Your task to perform on an android device: open chrome and create a bookmark for the current page Image 0: 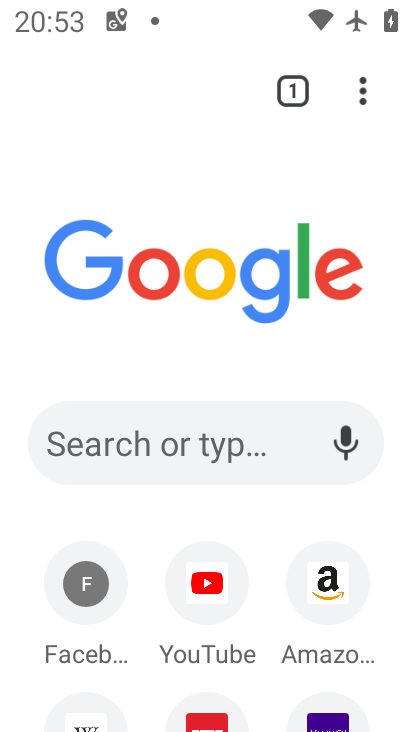
Step 0: press back button
Your task to perform on an android device: open chrome and create a bookmark for the current page Image 1: 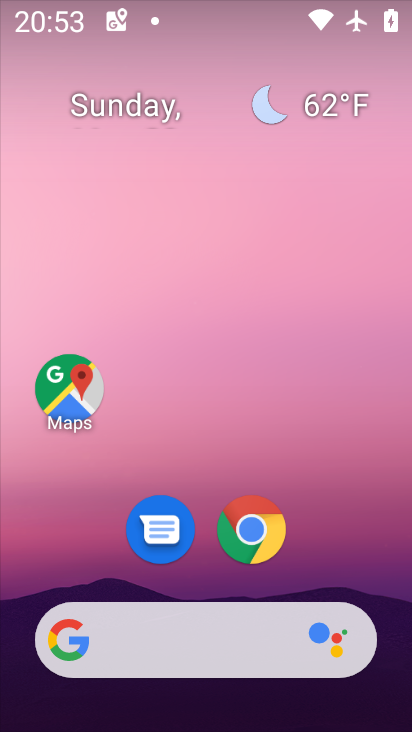
Step 1: drag from (363, 685) to (168, 7)
Your task to perform on an android device: open chrome and create a bookmark for the current page Image 2: 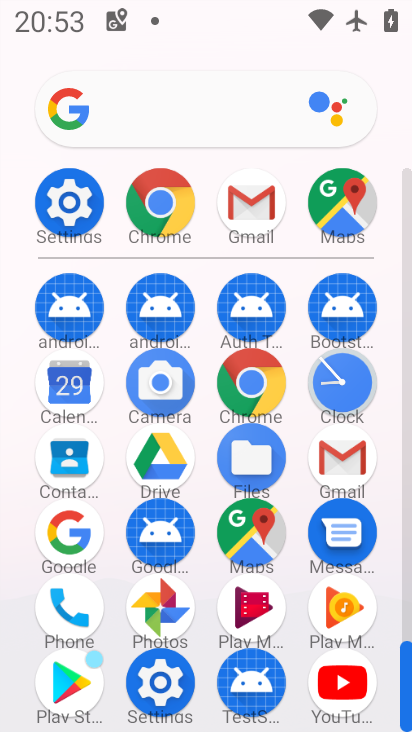
Step 2: click (255, 370)
Your task to perform on an android device: open chrome and create a bookmark for the current page Image 3: 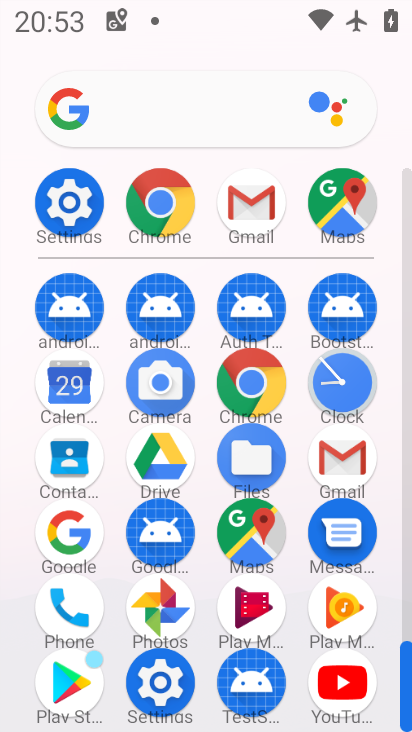
Step 3: click (255, 370)
Your task to perform on an android device: open chrome and create a bookmark for the current page Image 4: 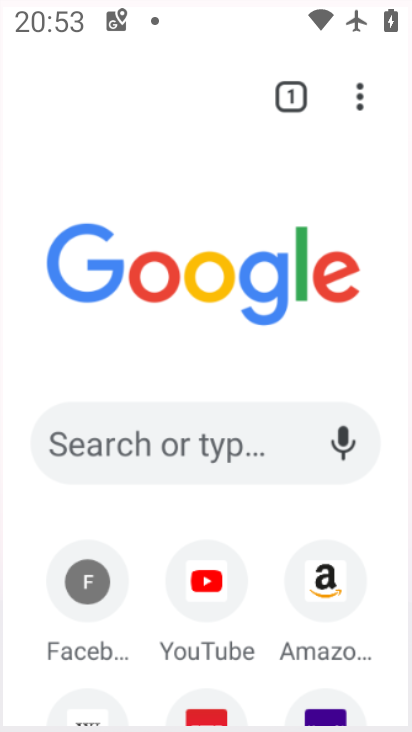
Step 4: click (254, 372)
Your task to perform on an android device: open chrome and create a bookmark for the current page Image 5: 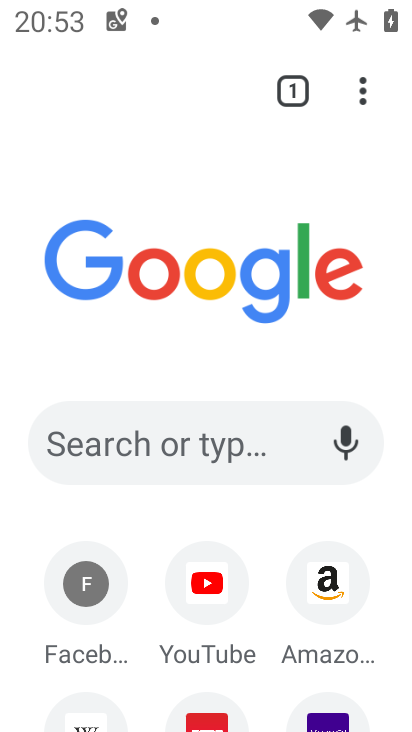
Step 5: drag from (269, 558) to (222, 207)
Your task to perform on an android device: open chrome and create a bookmark for the current page Image 6: 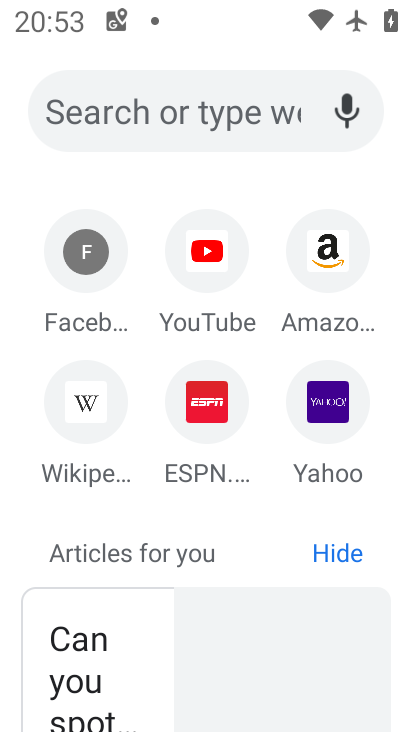
Step 6: drag from (248, 320) to (247, 240)
Your task to perform on an android device: open chrome and create a bookmark for the current page Image 7: 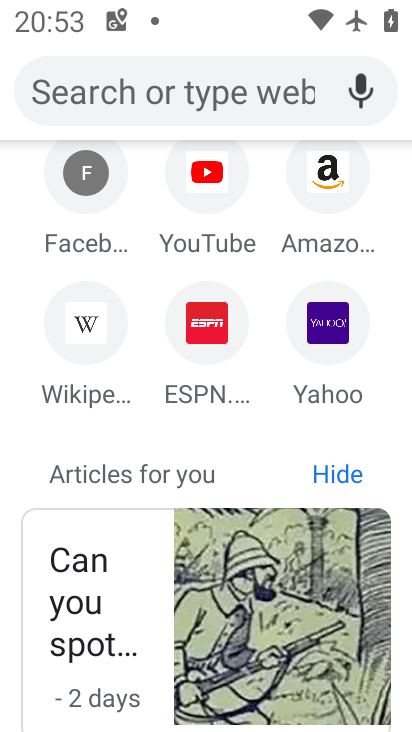
Step 7: drag from (226, 274) to (247, 563)
Your task to perform on an android device: open chrome and create a bookmark for the current page Image 8: 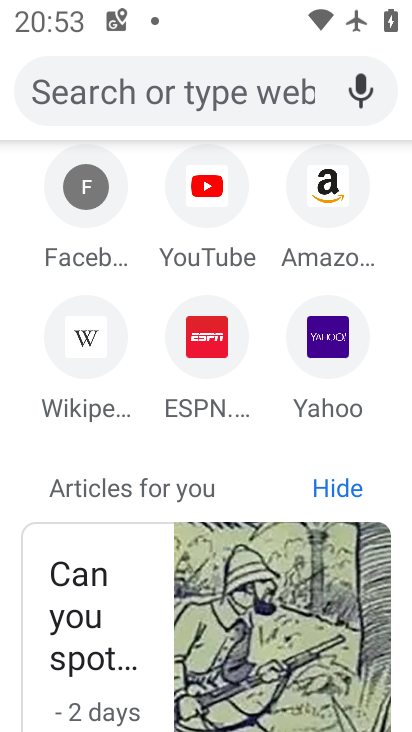
Step 8: click (264, 498)
Your task to perform on an android device: open chrome and create a bookmark for the current page Image 9: 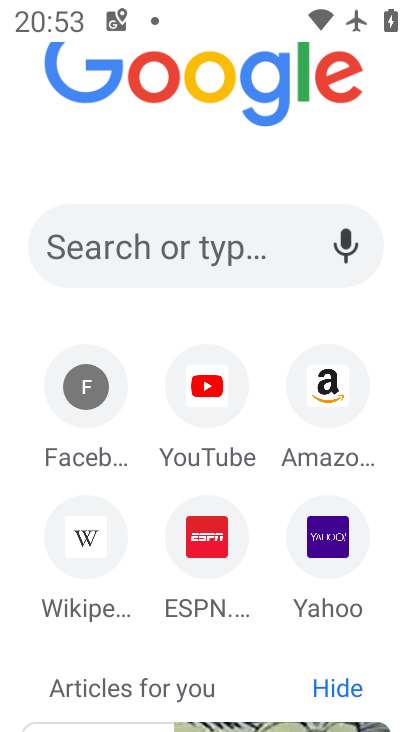
Step 9: drag from (276, 485) to (297, 578)
Your task to perform on an android device: open chrome and create a bookmark for the current page Image 10: 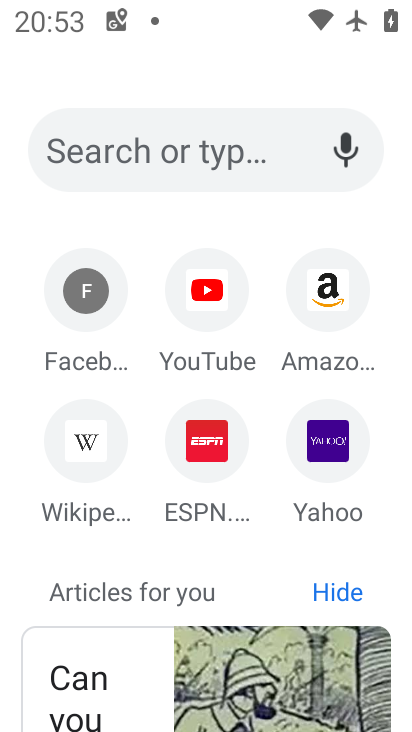
Step 10: click (75, 242)
Your task to perform on an android device: open chrome and create a bookmark for the current page Image 11: 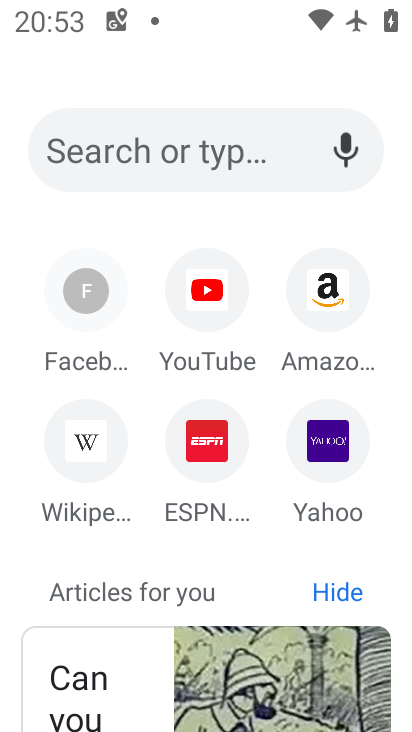
Step 11: click (75, 242)
Your task to perform on an android device: open chrome and create a bookmark for the current page Image 12: 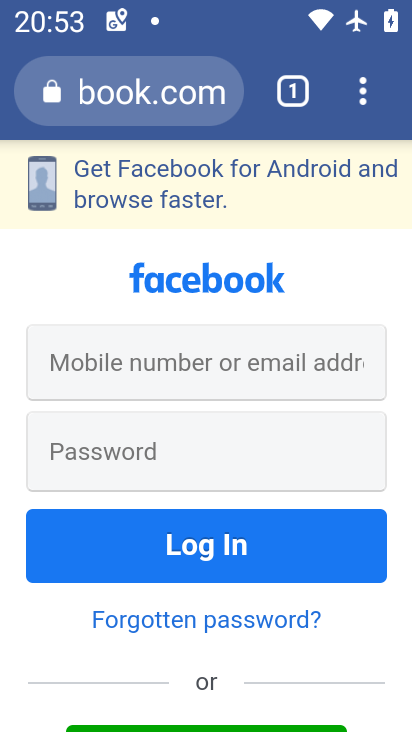
Step 12: press back button
Your task to perform on an android device: open chrome and create a bookmark for the current page Image 13: 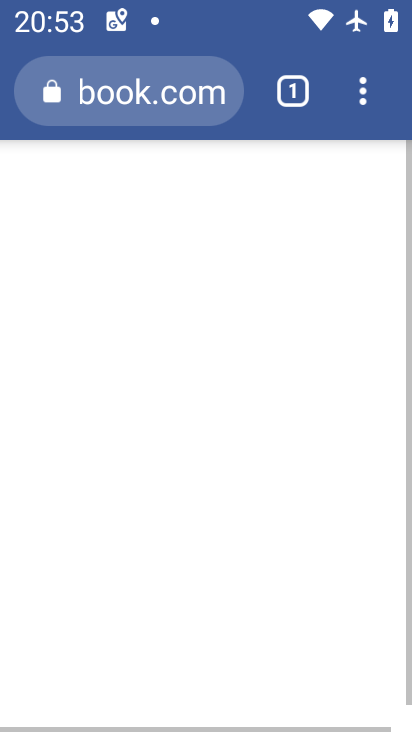
Step 13: press back button
Your task to perform on an android device: open chrome and create a bookmark for the current page Image 14: 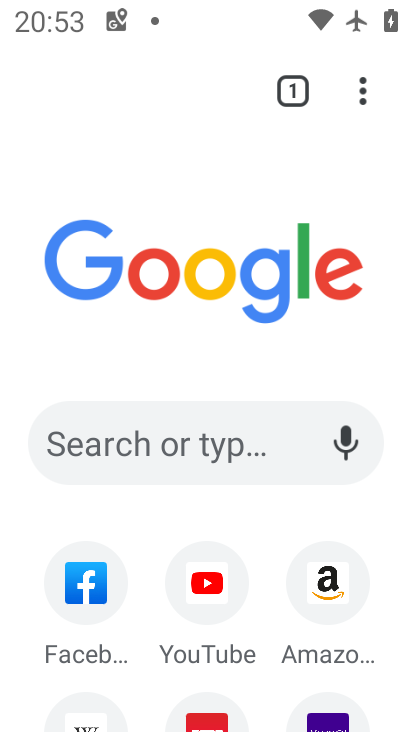
Step 14: press back button
Your task to perform on an android device: open chrome and create a bookmark for the current page Image 15: 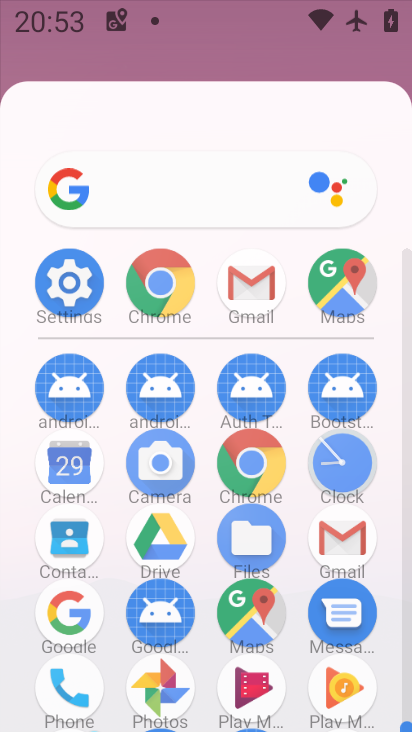
Step 15: press back button
Your task to perform on an android device: open chrome and create a bookmark for the current page Image 16: 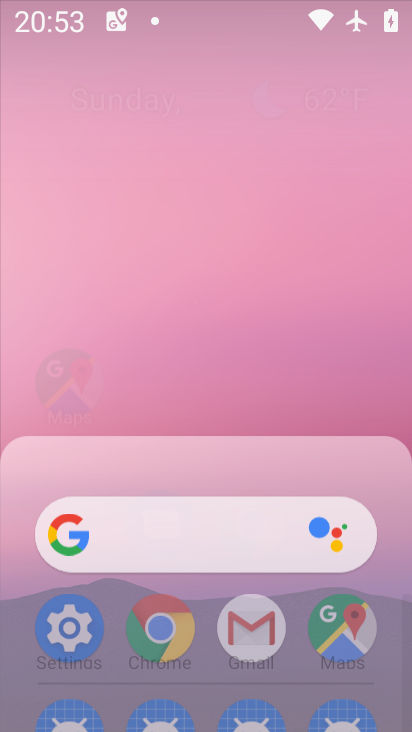
Step 16: click (75, 455)
Your task to perform on an android device: open chrome and create a bookmark for the current page Image 17: 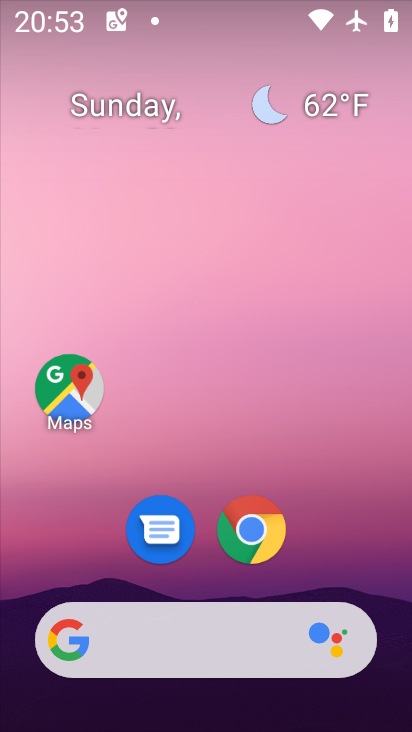
Step 17: click (75, 455)
Your task to perform on an android device: open chrome and create a bookmark for the current page Image 18: 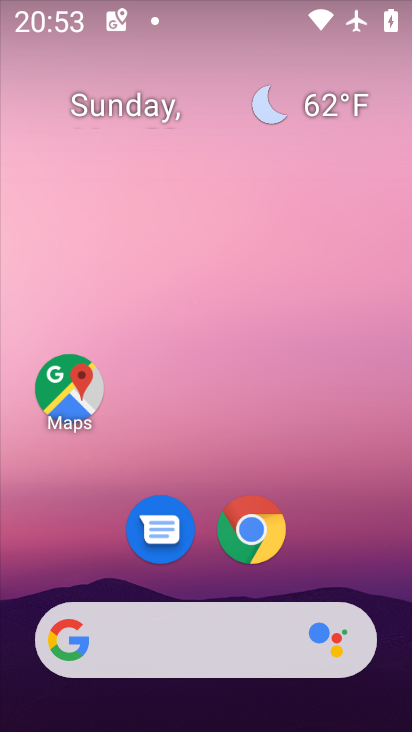
Step 18: drag from (185, 487) to (146, 72)
Your task to perform on an android device: open chrome and create a bookmark for the current page Image 19: 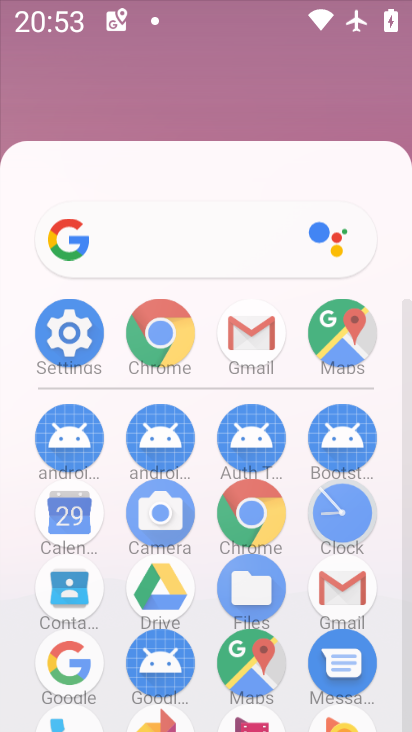
Step 19: drag from (177, 412) to (177, 16)
Your task to perform on an android device: open chrome and create a bookmark for the current page Image 20: 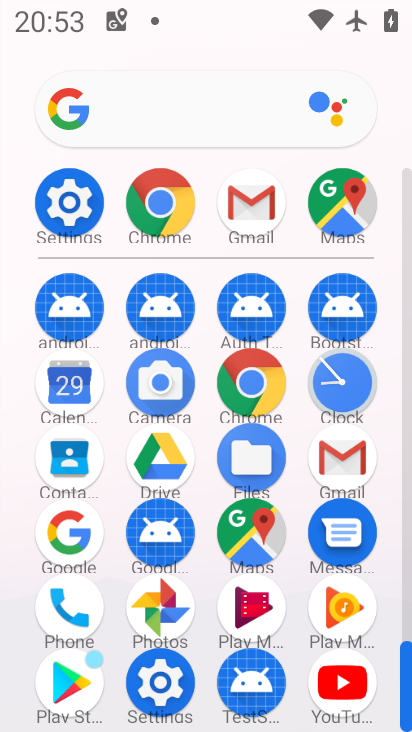
Step 20: drag from (245, 437) to (193, 102)
Your task to perform on an android device: open chrome and create a bookmark for the current page Image 21: 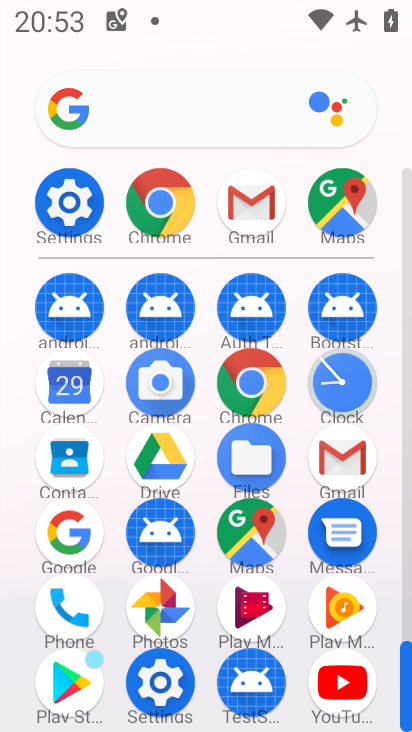
Step 21: click (158, 217)
Your task to perform on an android device: open chrome and create a bookmark for the current page Image 22: 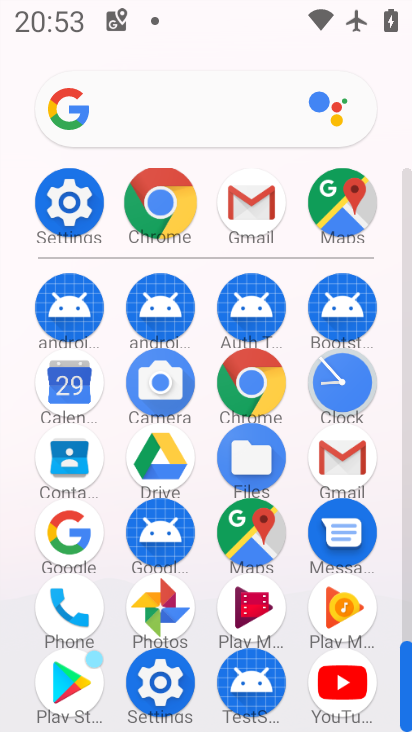
Step 22: click (160, 218)
Your task to perform on an android device: open chrome and create a bookmark for the current page Image 23: 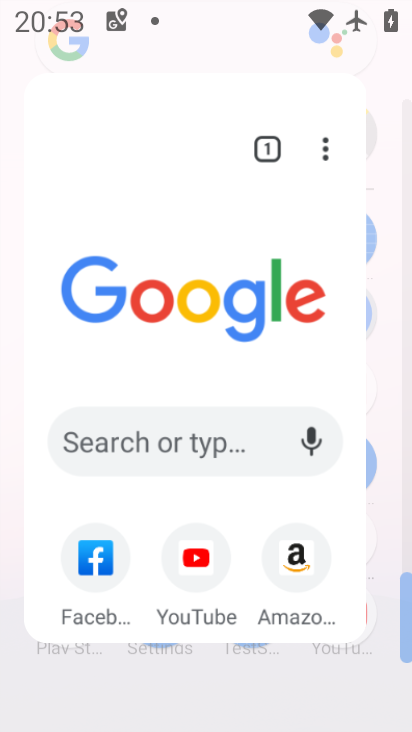
Step 23: click (160, 218)
Your task to perform on an android device: open chrome and create a bookmark for the current page Image 24: 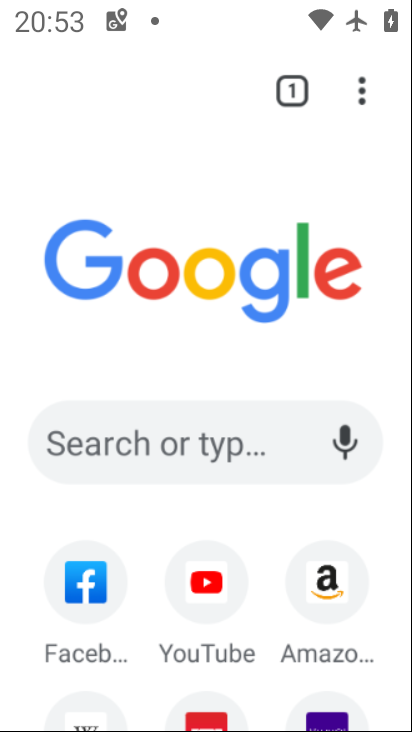
Step 24: click (160, 220)
Your task to perform on an android device: open chrome and create a bookmark for the current page Image 25: 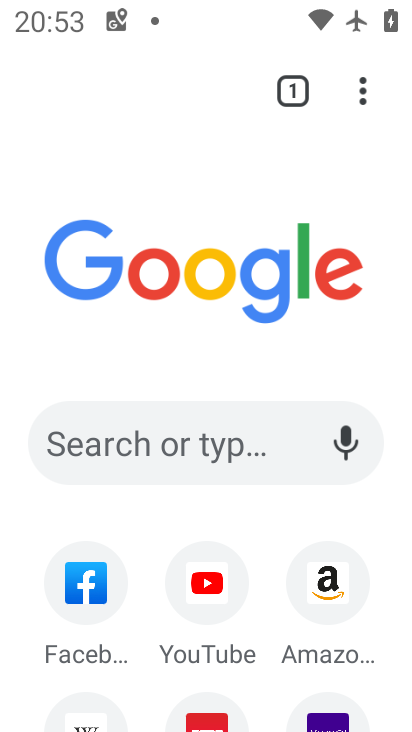
Step 25: click (91, 440)
Your task to perform on an android device: open chrome and create a bookmark for the current page Image 26: 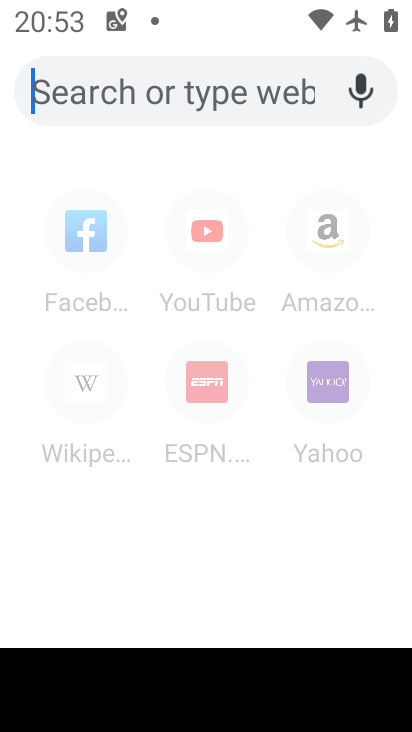
Step 26: type "www.snapdeal.com"
Your task to perform on an android device: open chrome and create a bookmark for the current page Image 27: 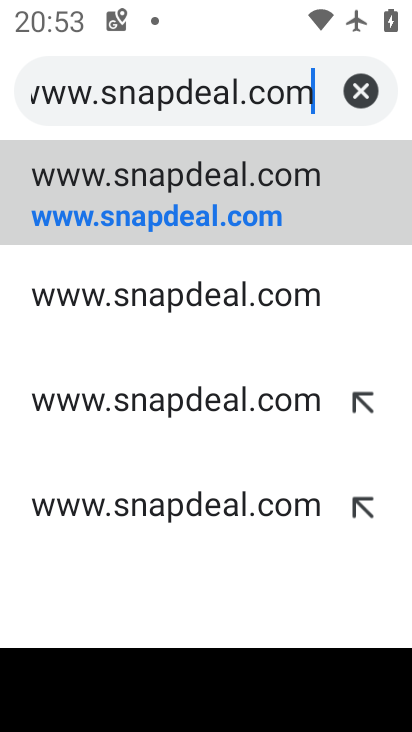
Step 27: click (231, 213)
Your task to perform on an android device: open chrome and create a bookmark for the current page Image 28: 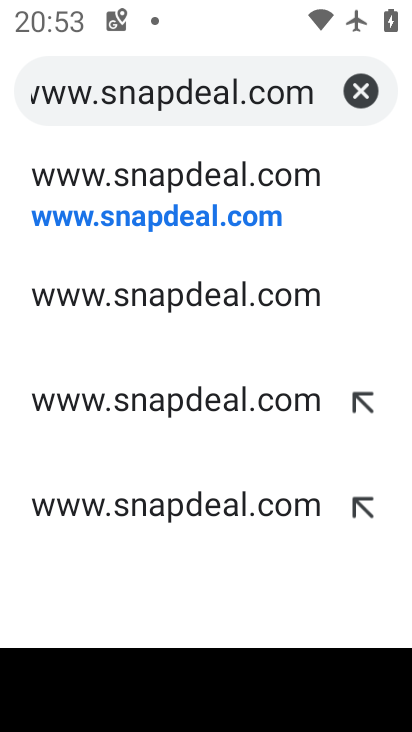
Step 28: click (231, 213)
Your task to perform on an android device: open chrome and create a bookmark for the current page Image 29: 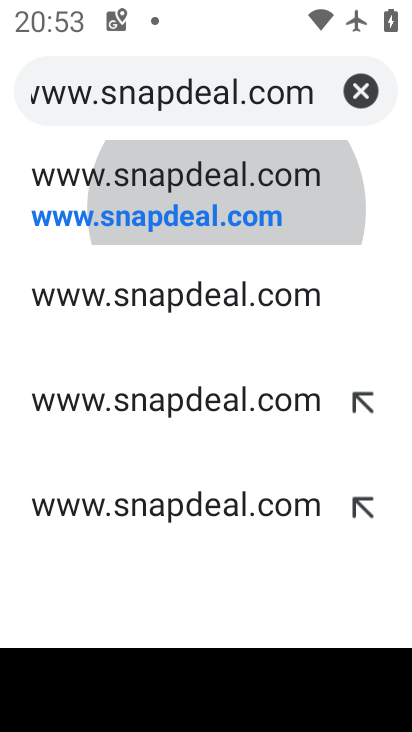
Step 29: click (231, 213)
Your task to perform on an android device: open chrome and create a bookmark for the current page Image 30: 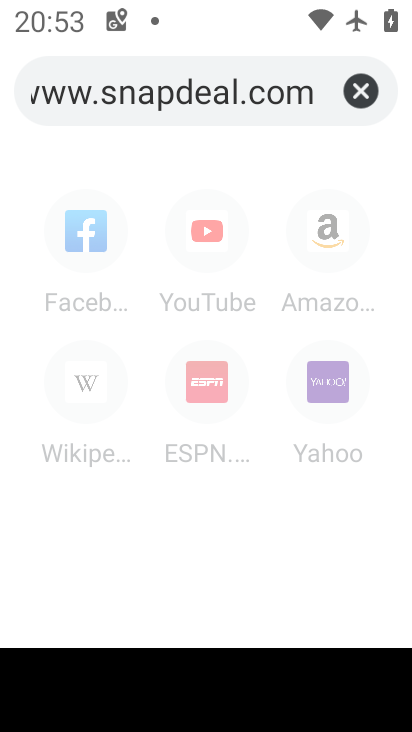
Step 30: click (231, 213)
Your task to perform on an android device: open chrome and create a bookmark for the current page Image 31: 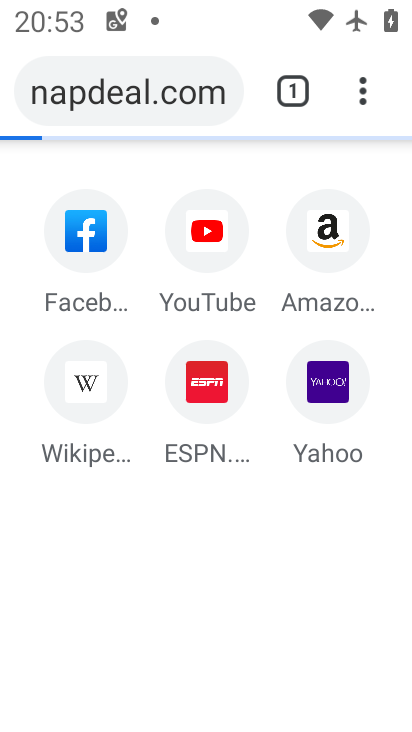
Step 31: click (231, 213)
Your task to perform on an android device: open chrome and create a bookmark for the current page Image 32: 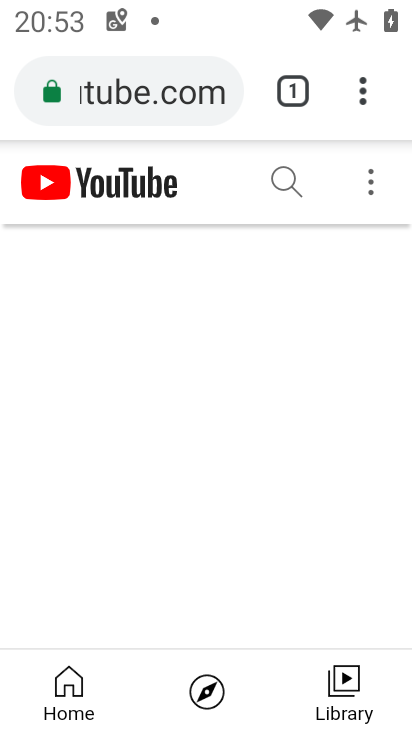
Step 32: click (365, 97)
Your task to perform on an android device: open chrome and create a bookmark for the current page Image 33: 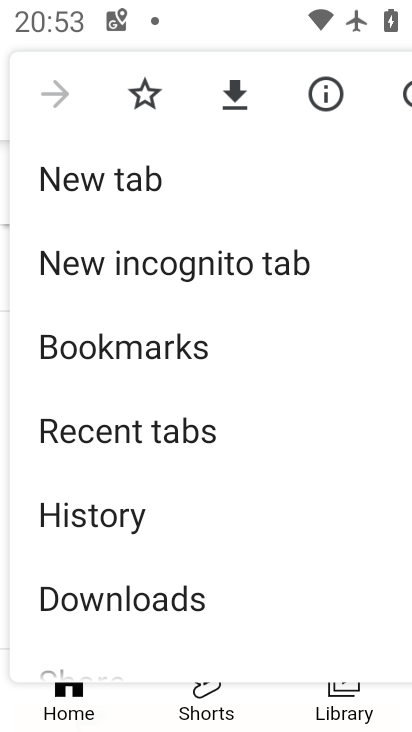
Step 33: click (144, 96)
Your task to perform on an android device: open chrome and create a bookmark for the current page Image 34: 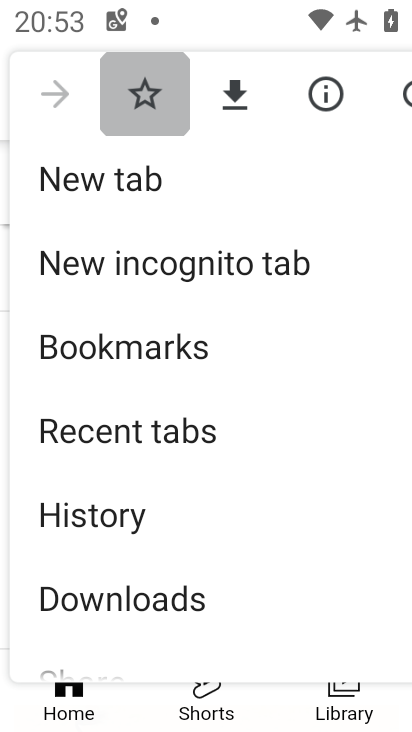
Step 34: click (144, 96)
Your task to perform on an android device: open chrome and create a bookmark for the current page Image 35: 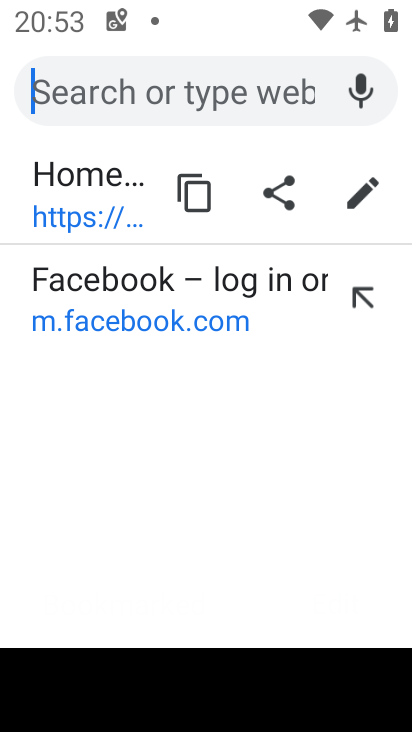
Step 35: task complete